Your task to perform on an android device: change the clock display to digital Image 0: 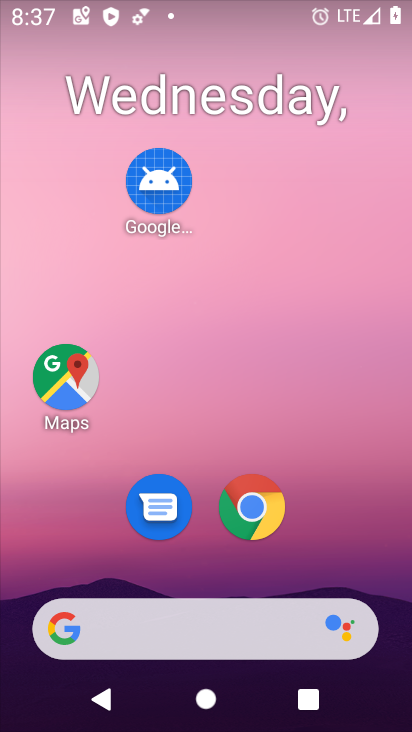
Step 0: drag from (221, 572) to (252, 2)
Your task to perform on an android device: change the clock display to digital Image 1: 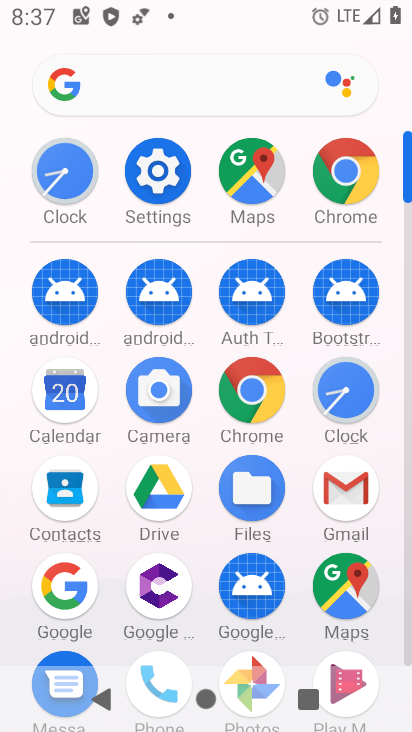
Step 1: click (349, 402)
Your task to perform on an android device: change the clock display to digital Image 2: 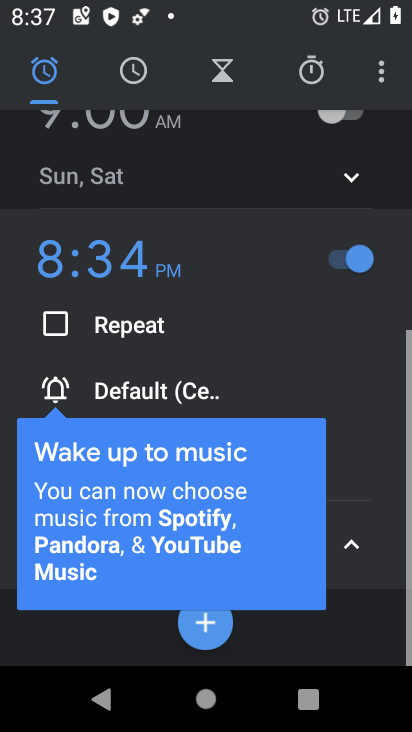
Step 2: click (381, 72)
Your task to perform on an android device: change the clock display to digital Image 3: 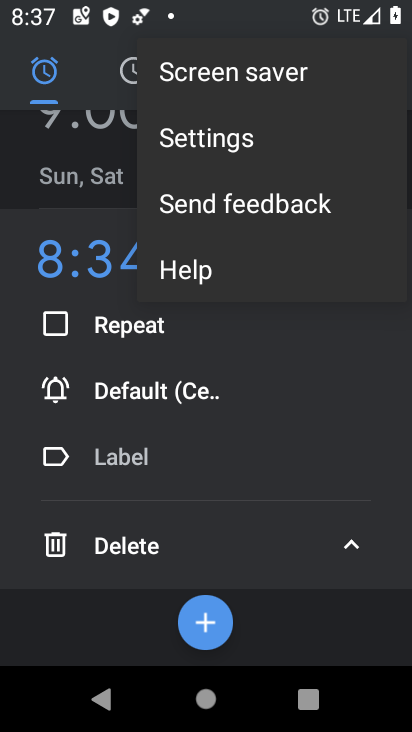
Step 3: click (263, 148)
Your task to perform on an android device: change the clock display to digital Image 4: 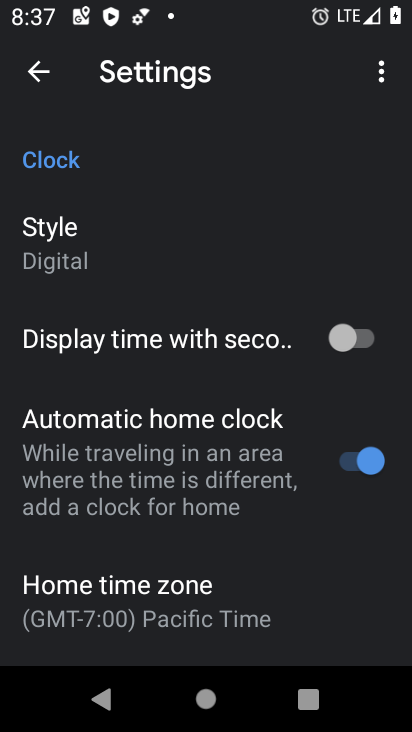
Step 4: click (59, 235)
Your task to perform on an android device: change the clock display to digital Image 5: 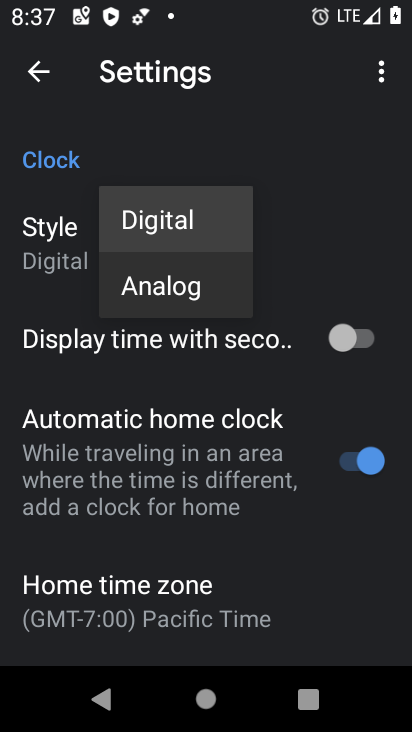
Step 5: task complete